Your task to perform on an android device: turn off smart reply in the gmail app Image 0: 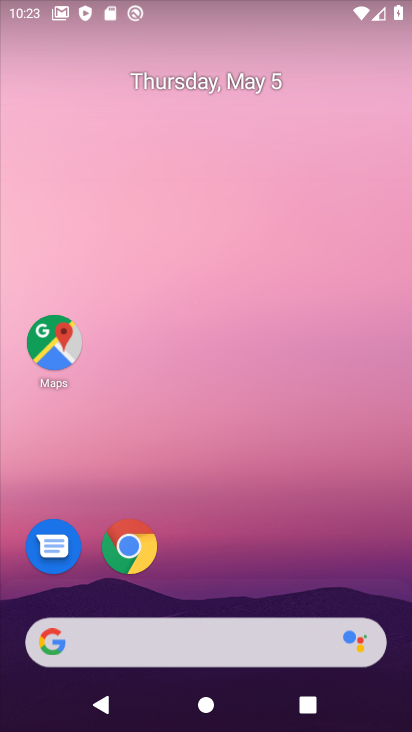
Step 0: drag from (206, 603) to (228, 157)
Your task to perform on an android device: turn off smart reply in the gmail app Image 1: 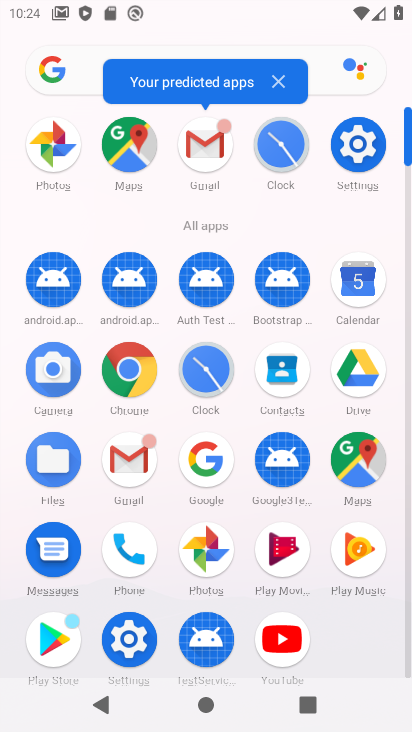
Step 1: click (128, 460)
Your task to perform on an android device: turn off smart reply in the gmail app Image 2: 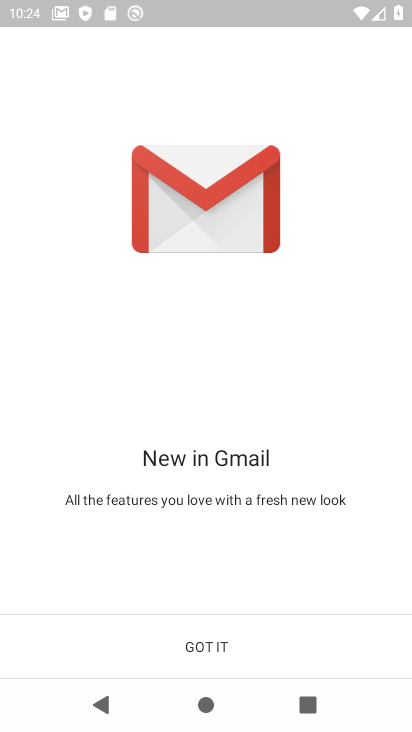
Step 2: click (217, 638)
Your task to perform on an android device: turn off smart reply in the gmail app Image 3: 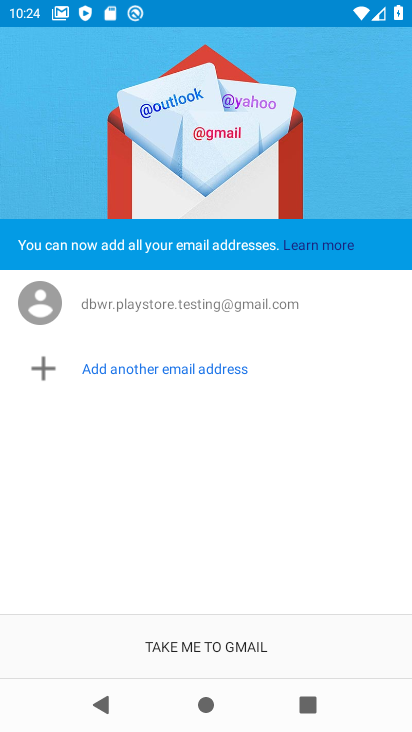
Step 3: click (190, 649)
Your task to perform on an android device: turn off smart reply in the gmail app Image 4: 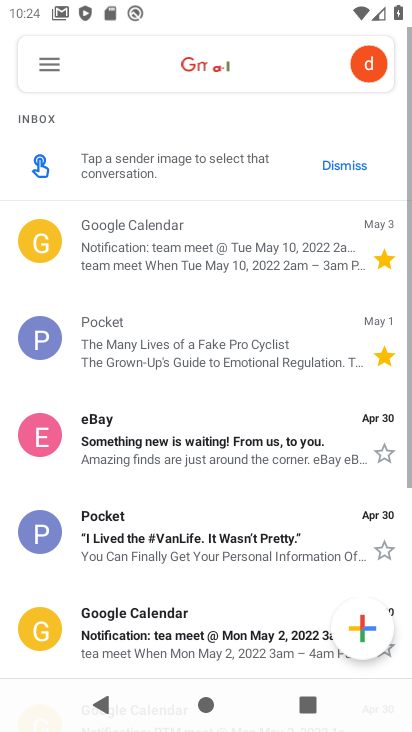
Step 4: click (62, 59)
Your task to perform on an android device: turn off smart reply in the gmail app Image 5: 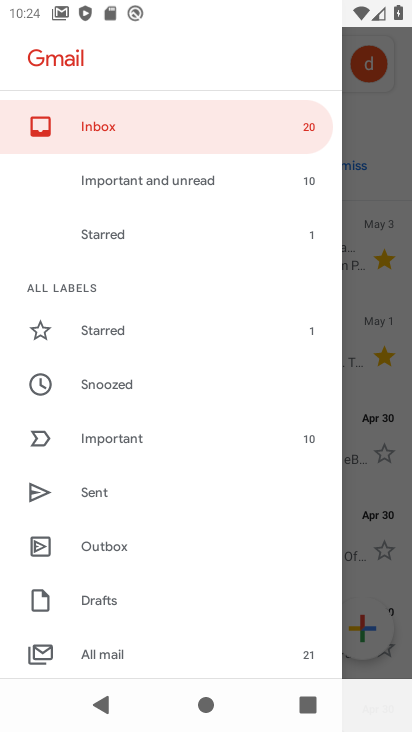
Step 5: drag from (108, 588) to (209, 165)
Your task to perform on an android device: turn off smart reply in the gmail app Image 6: 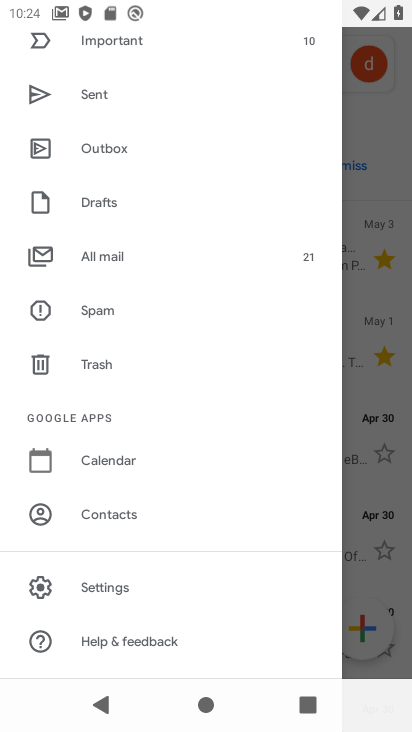
Step 6: click (136, 594)
Your task to perform on an android device: turn off smart reply in the gmail app Image 7: 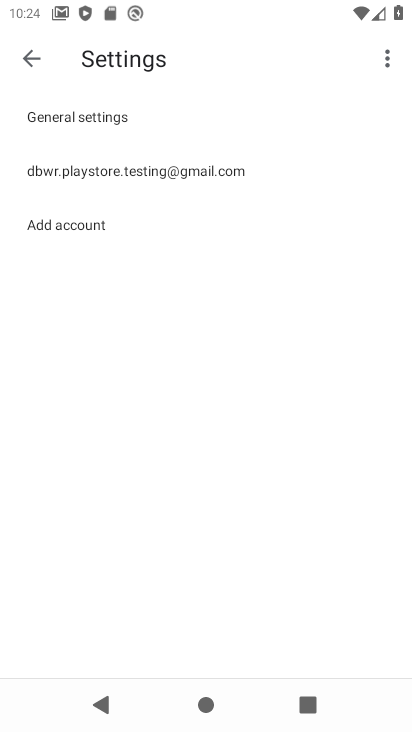
Step 7: click (119, 162)
Your task to perform on an android device: turn off smart reply in the gmail app Image 8: 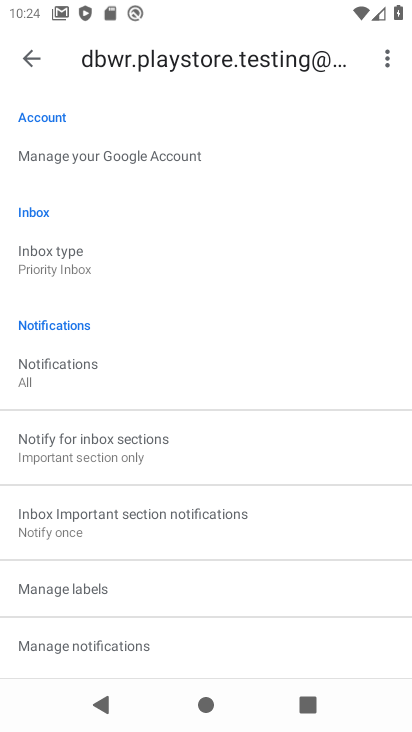
Step 8: drag from (131, 481) to (179, 169)
Your task to perform on an android device: turn off smart reply in the gmail app Image 9: 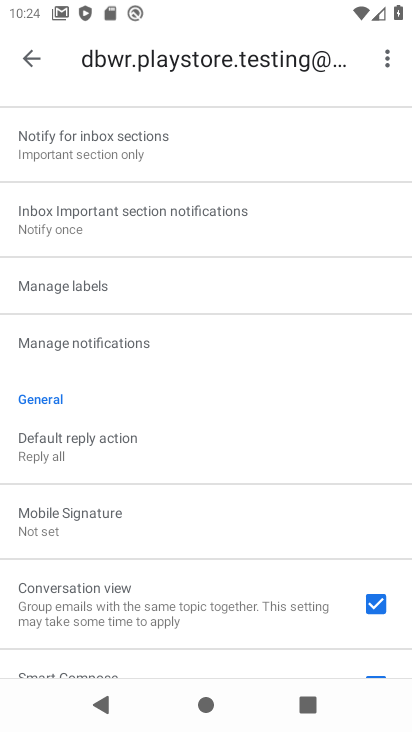
Step 9: drag from (133, 567) to (215, 129)
Your task to perform on an android device: turn off smart reply in the gmail app Image 10: 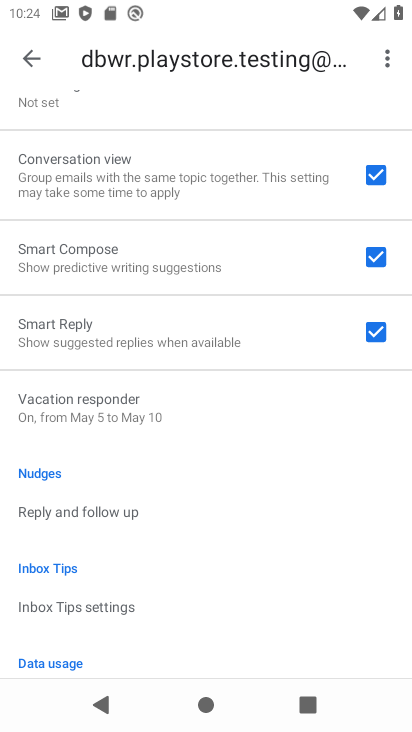
Step 10: click (368, 332)
Your task to perform on an android device: turn off smart reply in the gmail app Image 11: 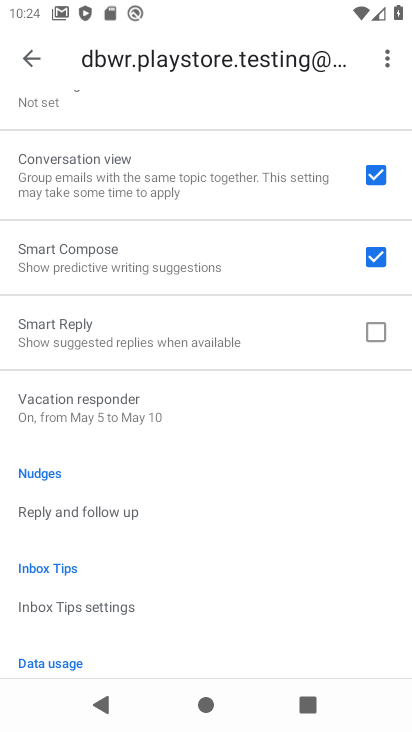
Step 11: task complete